Your task to perform on an android device: turn pop-ups off in chrome Image 0: 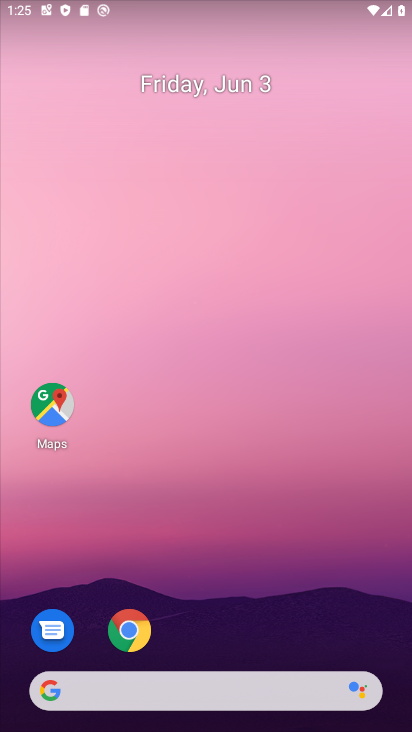
Step 0: click (133, 628)
Your task to perform on an android device: turn pop-ups off in chrome Image 1: 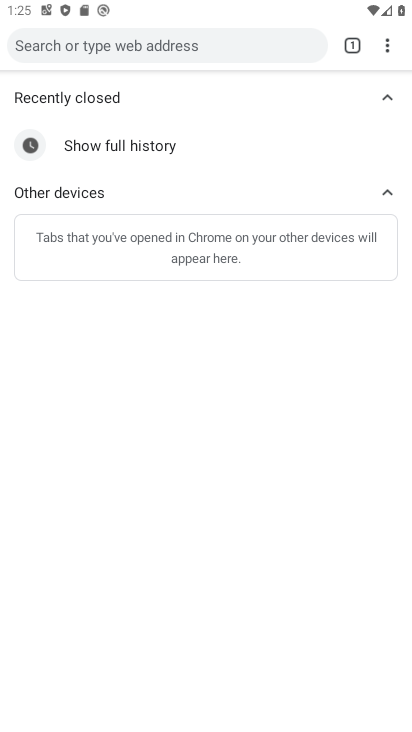
Step 1: click (387, 53)
Your task to perform on an android device: turn pop-ups off in chrome Image 2: 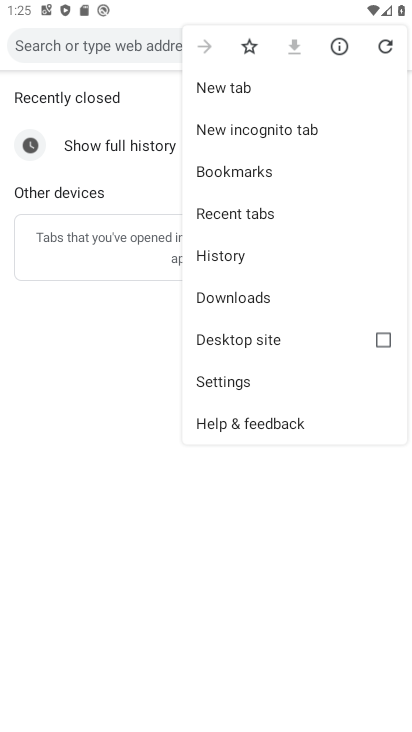
Step 2: click (233, 382)
Your task to perform on an android device: turn pop-ups off in chrome Image 3: 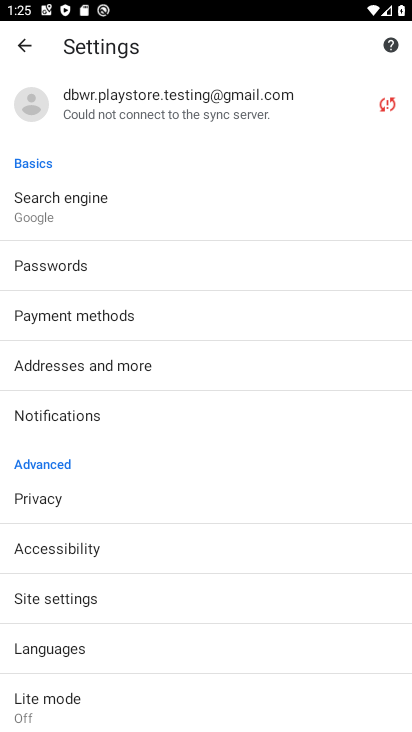
Step 3: click (63, 597)
Your task to perform on an android device: turn pop-ups off in chrome Image 4: 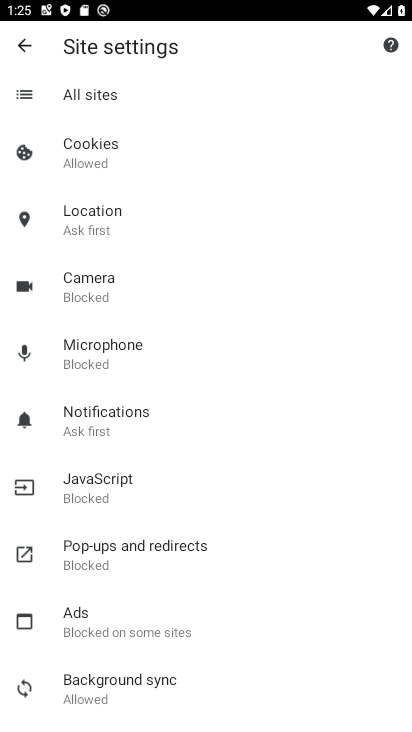
Step 4: click (85, 554)
Your task to perform on an android device: turn pop-ups off in chrome Image 5: 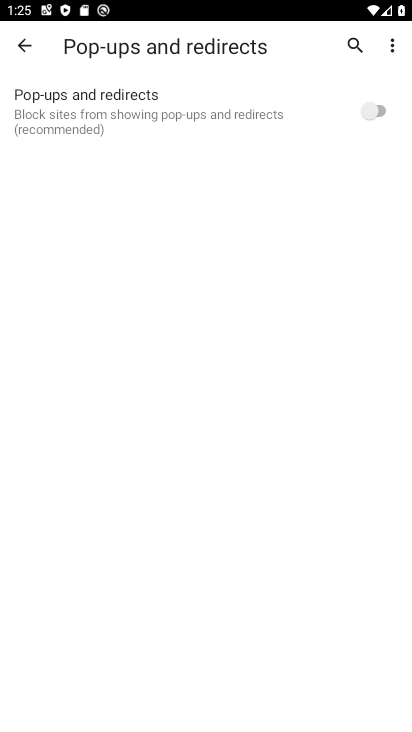
Step 5: task complete